Your task to perform on an android device: What is the news today? Image 0: 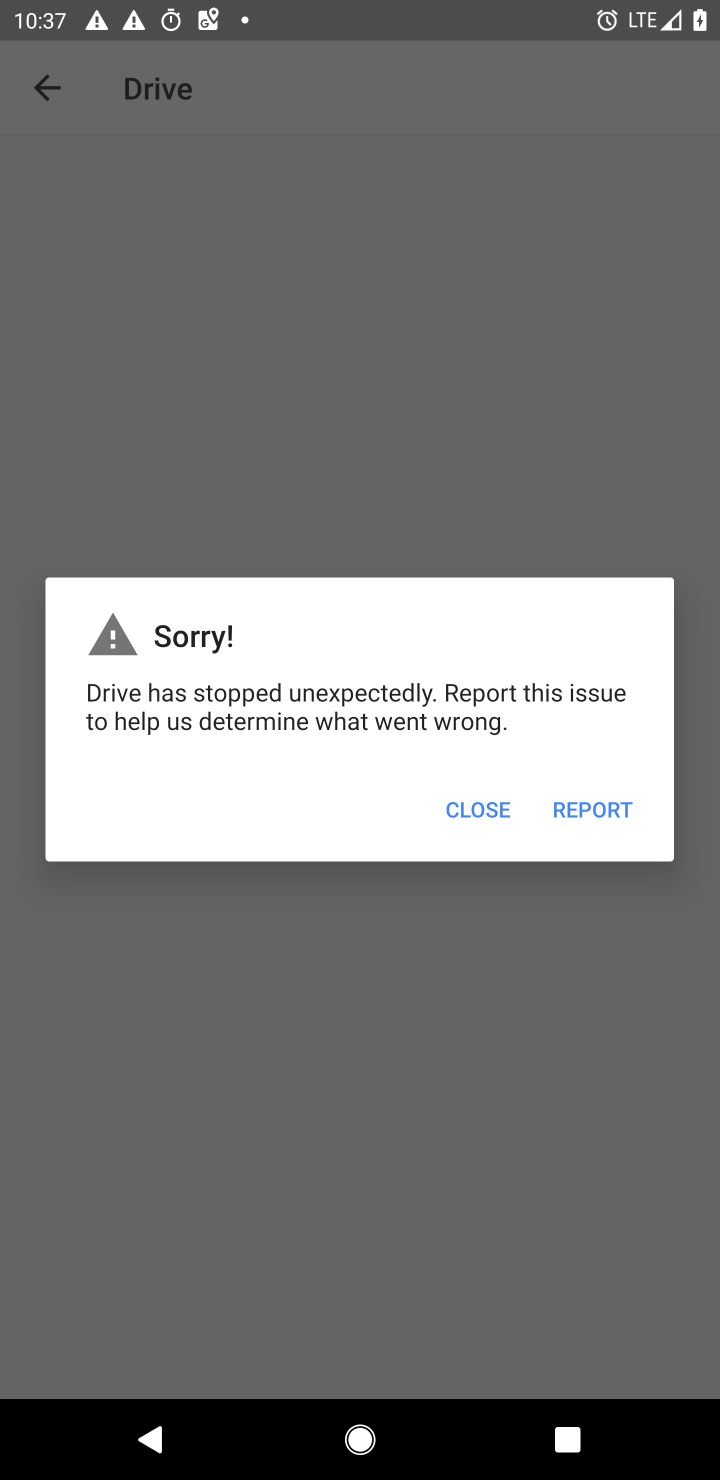
Step 0: click (462, 798)
Your task to perform on an android device: What is the news today? Image 1: 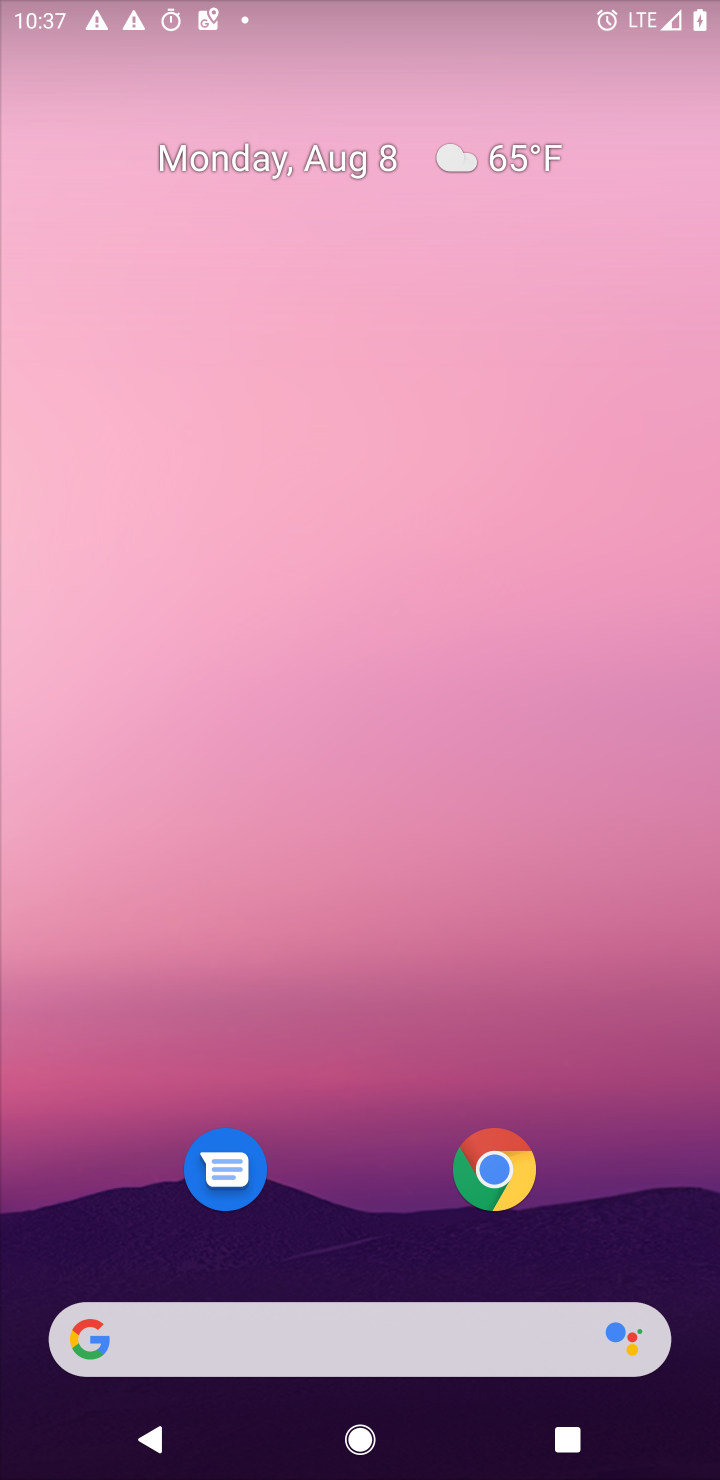
Step 1: click (333, 1335)
Your task to perform on an android device: What is the news today? Image 2: 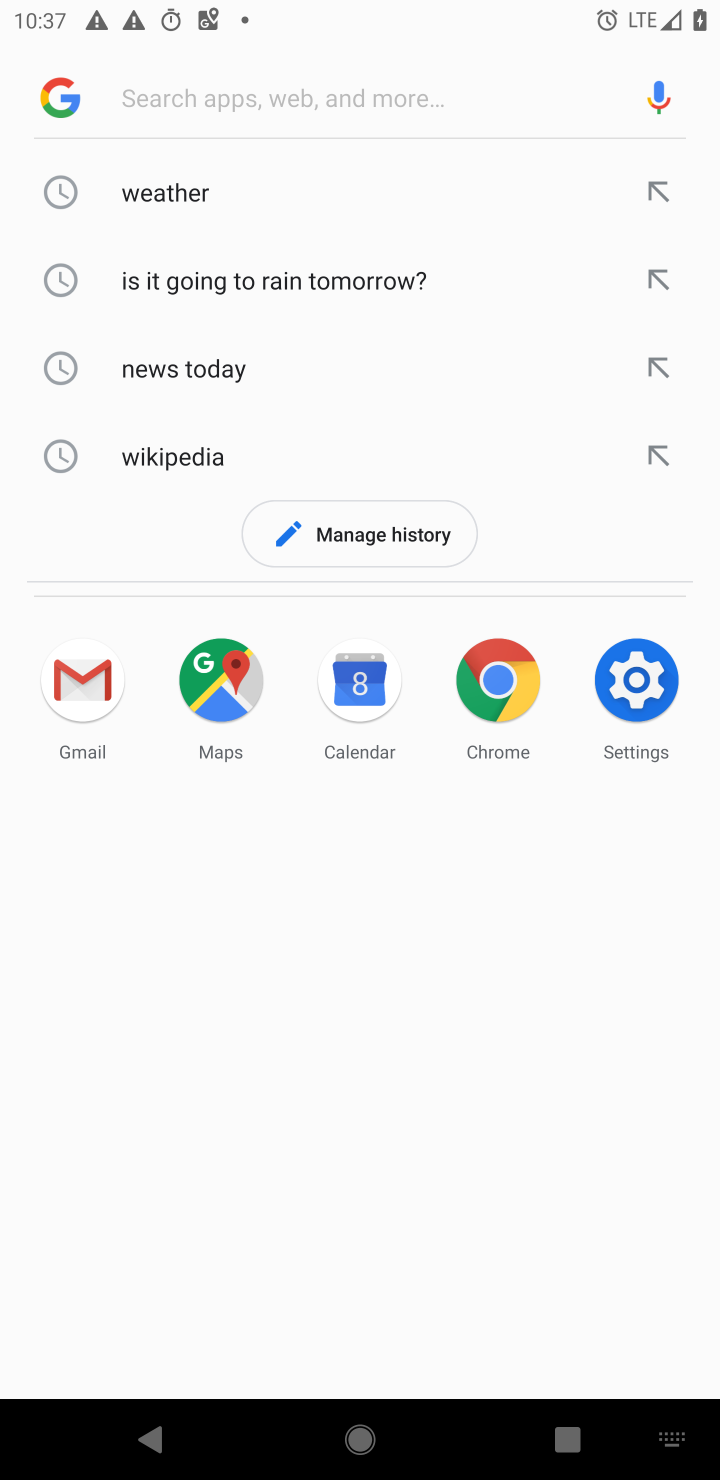
Step 2: click (230, 84)
Your task to perform on an android device: What is the news today? Image 3: 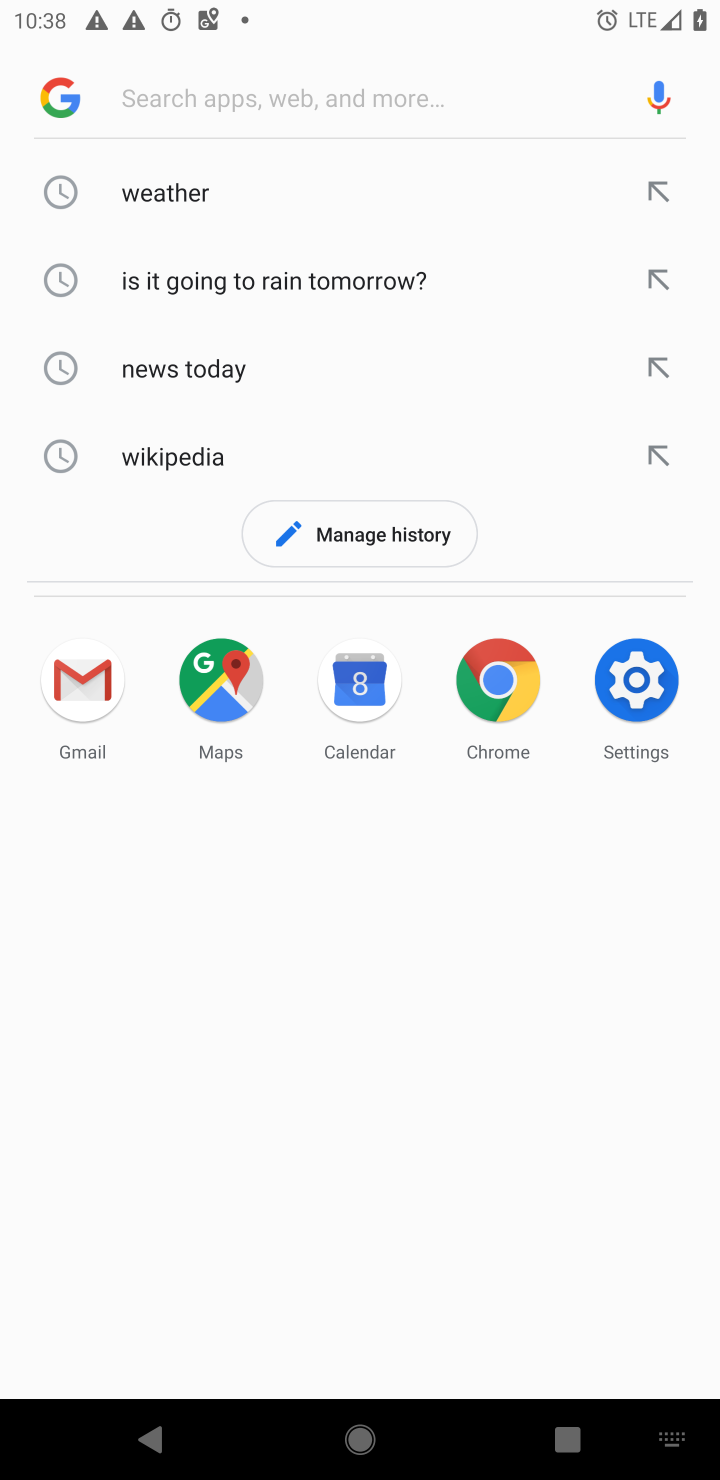
Step 3: type "news today"
Your task to perform on an android device: What is the news today? Image 4: 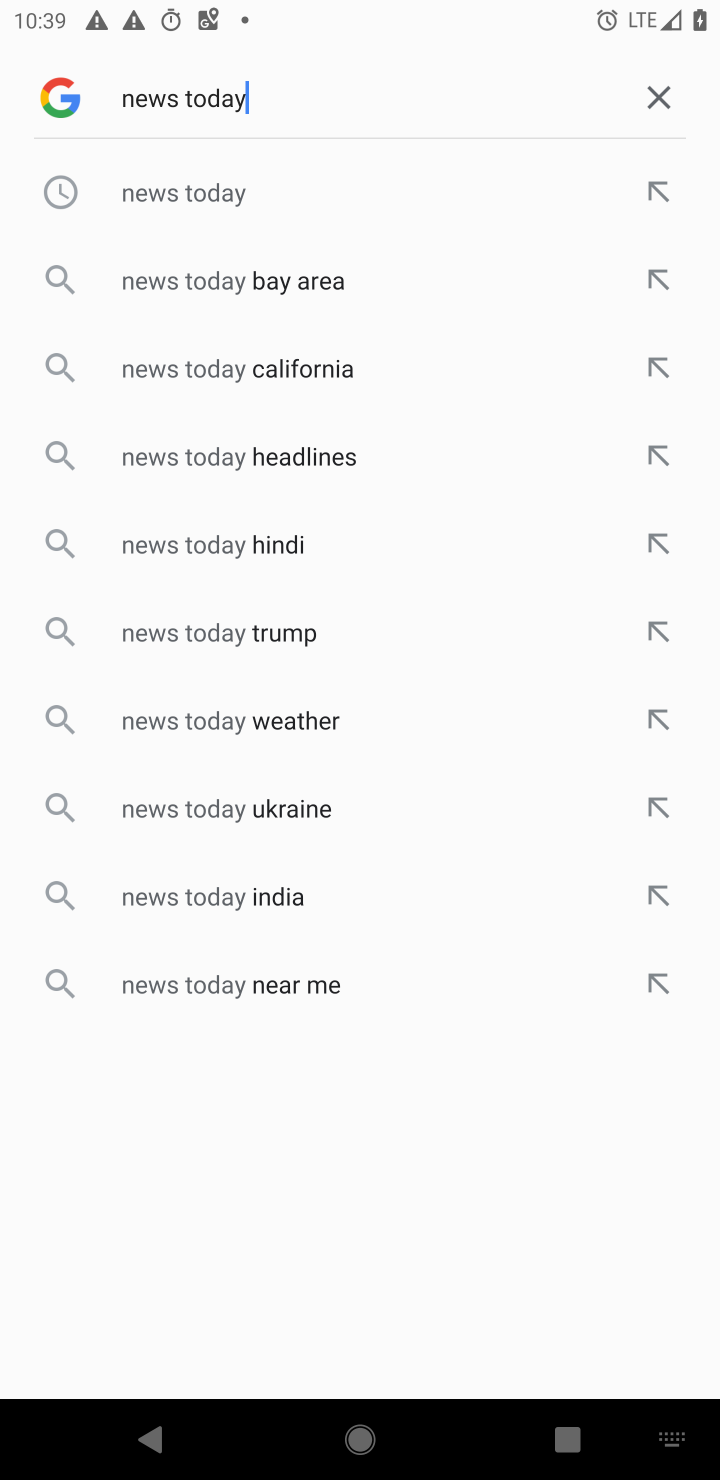
Step 4: click (224, 178)
Your task to perform on an android device: What is the news today? Image 5: 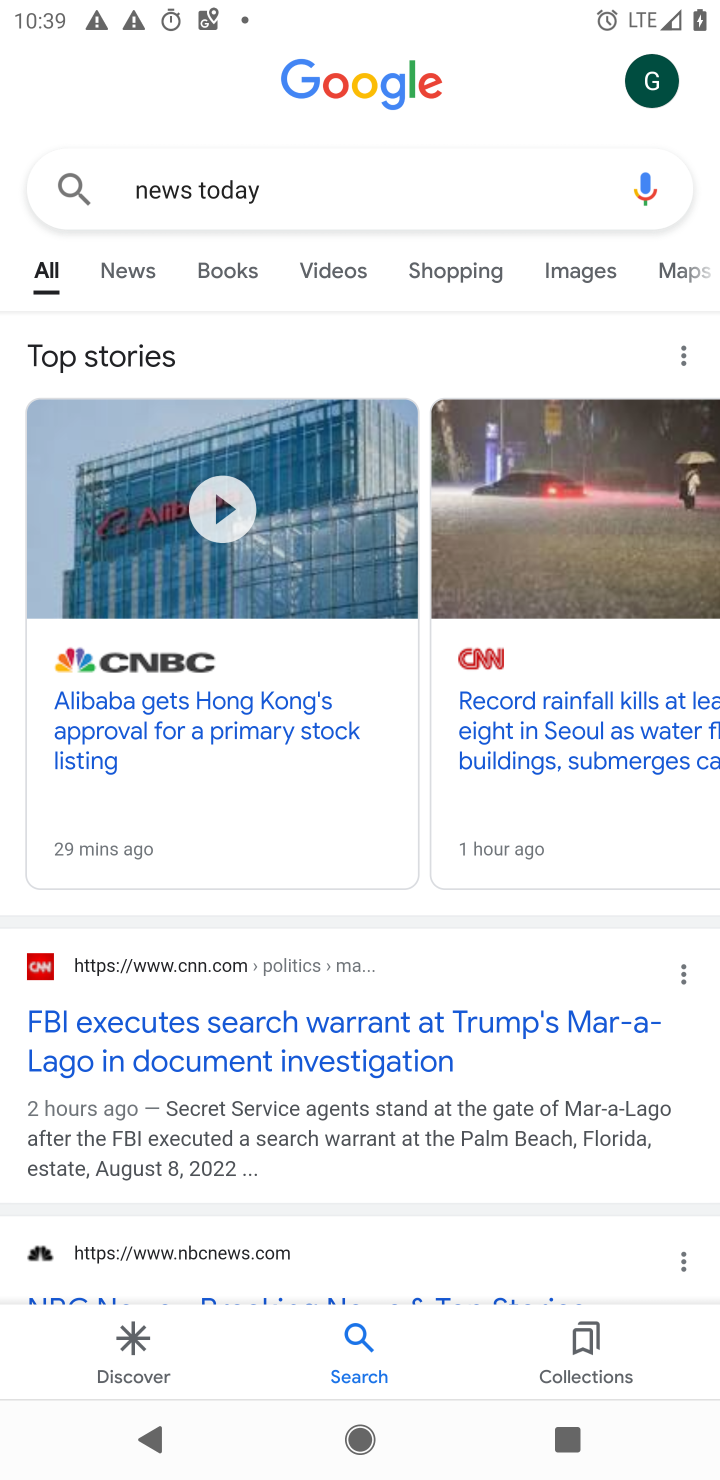
Step 5: task complete